Your task to perform on an android device: Do I have any events this weekend? Image 0: 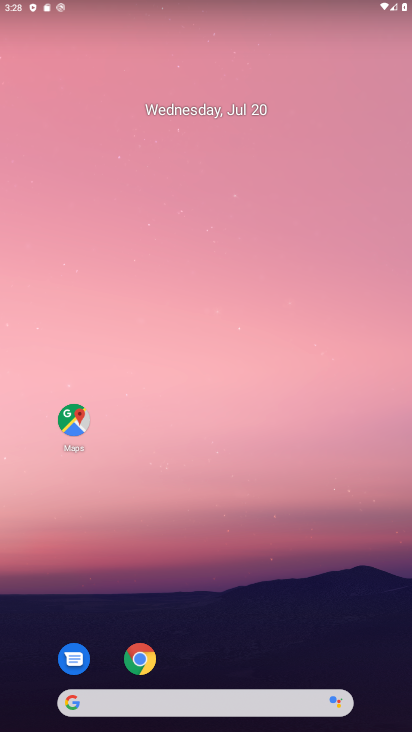
Step 0: drag from (197, 631) to (190, 147)
Your task to perform on an android device: Do I have any events this weekend? Image 1: 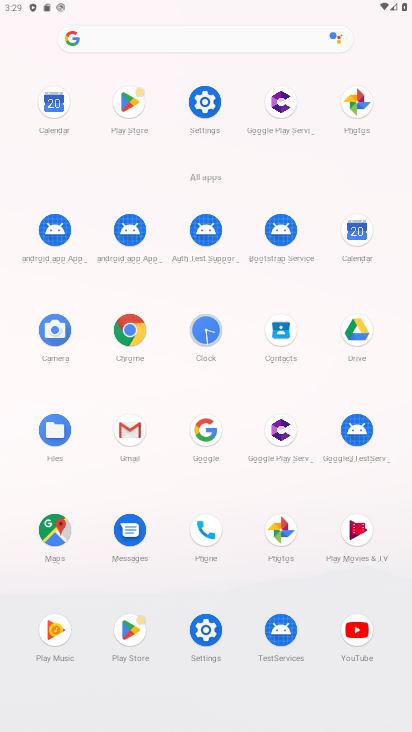
Step 1: click (360, 243)
Your task to perform on an android device: Do I have any events this weekend? Image 2: 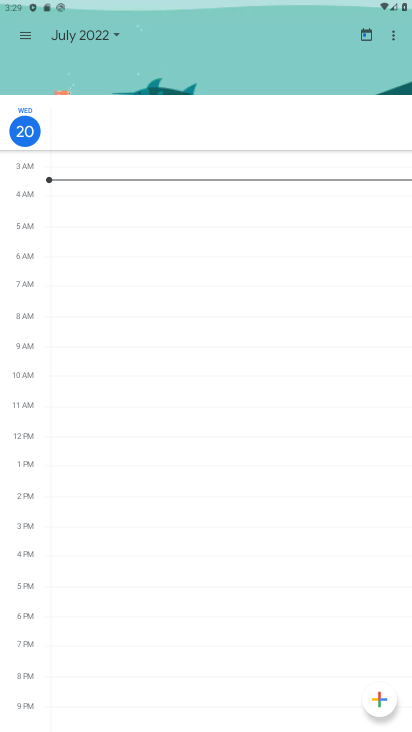
Step 2: click (74, 40)
Your task to perform on an android device: Do I have any events this weekend? Image 3: 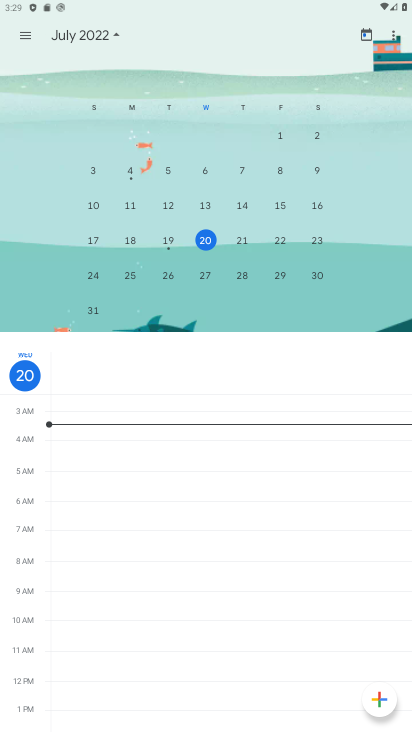
Step 3: click (21, 32)
Your task to perform on an android device: Do I have any events this weekend? Image 4: 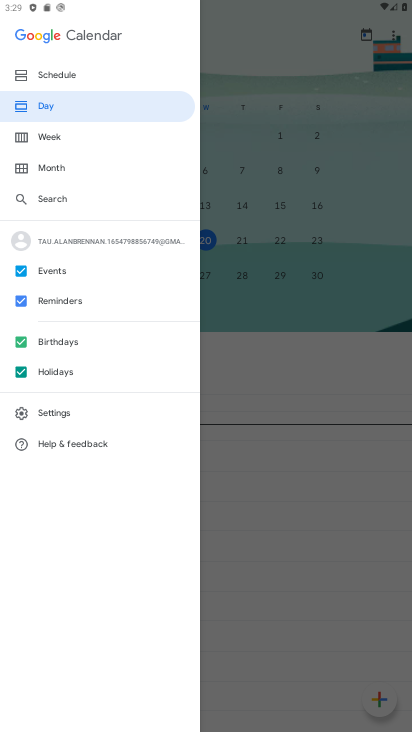
Step 4: click (50, 141)
Your task to perform on an android device: Do I have any events this weekend? Image 5: 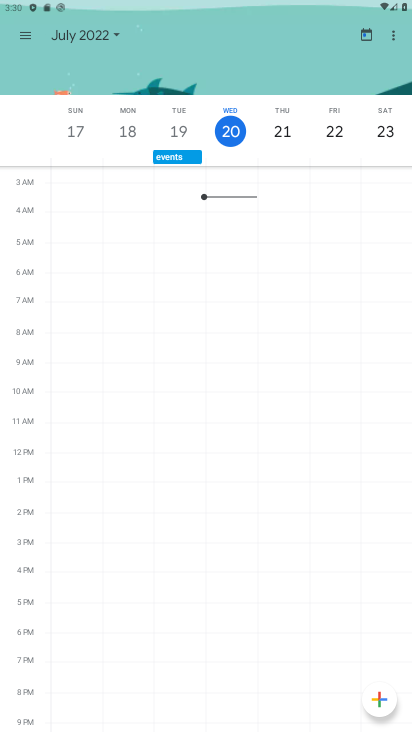
Step 5: task complete